Your task to perform on an android device: Open Amazon Image 0: 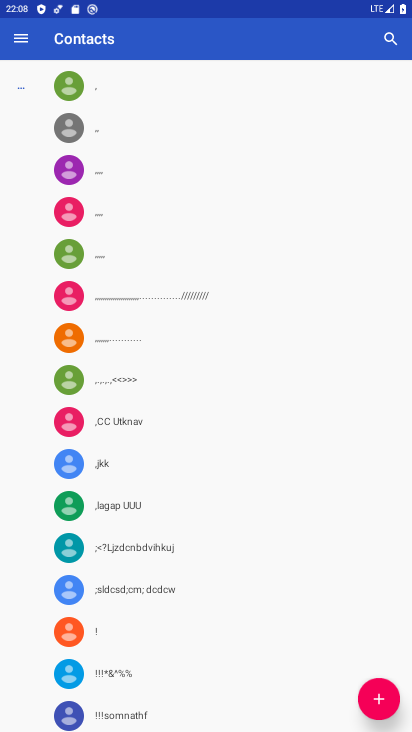
Step 0: press home button
Your task to perform on an android device: Open Amazon Image 1: 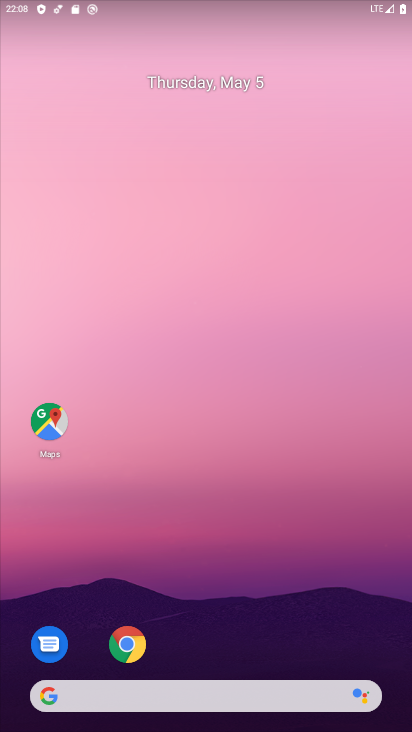
Step 1: click (130, 646)
Your task to perform on an android device: Open Amazon Image 2: 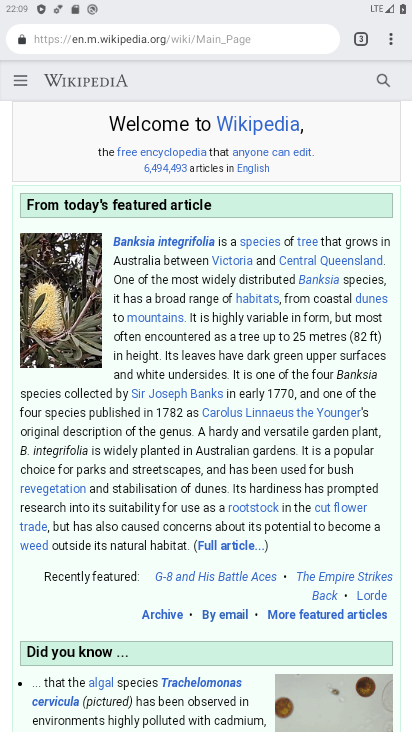
Step 2: click (353, 38)
Your task to perform on an android device: Open Amazon Image 3: 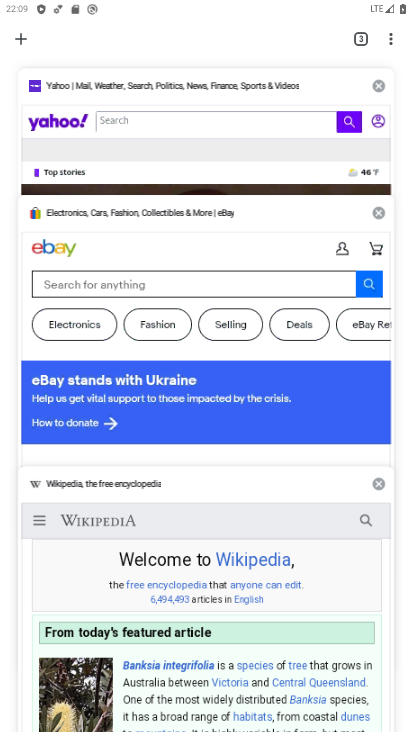
Step 3: click (17, 33)
Your task to perform on an android device: Open Amazon Image 4: 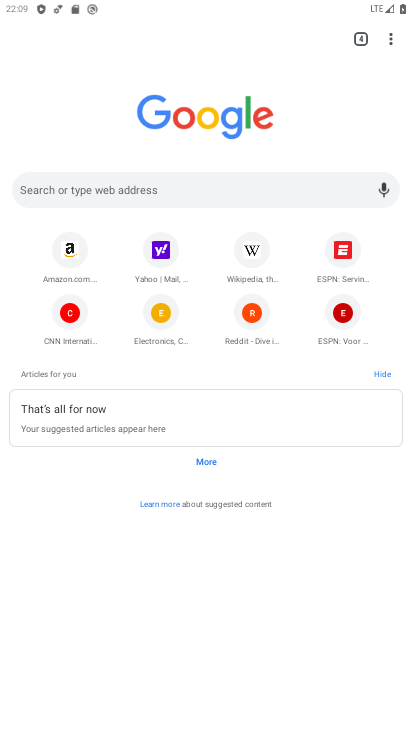
Step 4: click (73, 249)
Your task to perform on an android device: Open Amazon Image 5: 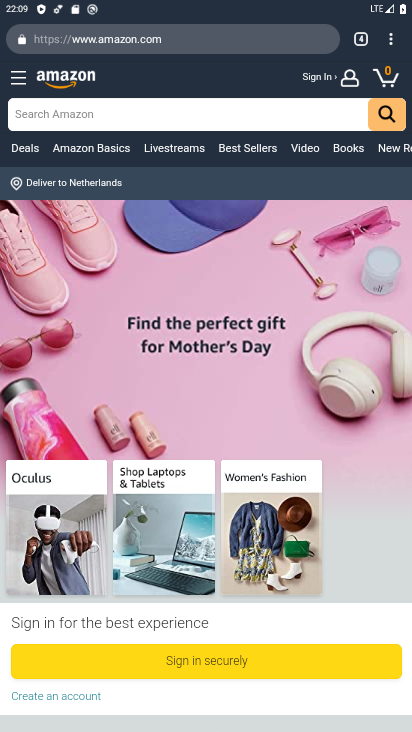
Step 5: task complete